Your task to perform on an android device: Clear all items from cart on walmart.com. Add "macbook pro 13 inch" to the cart on walmart.com, then select checkout. Image 0: 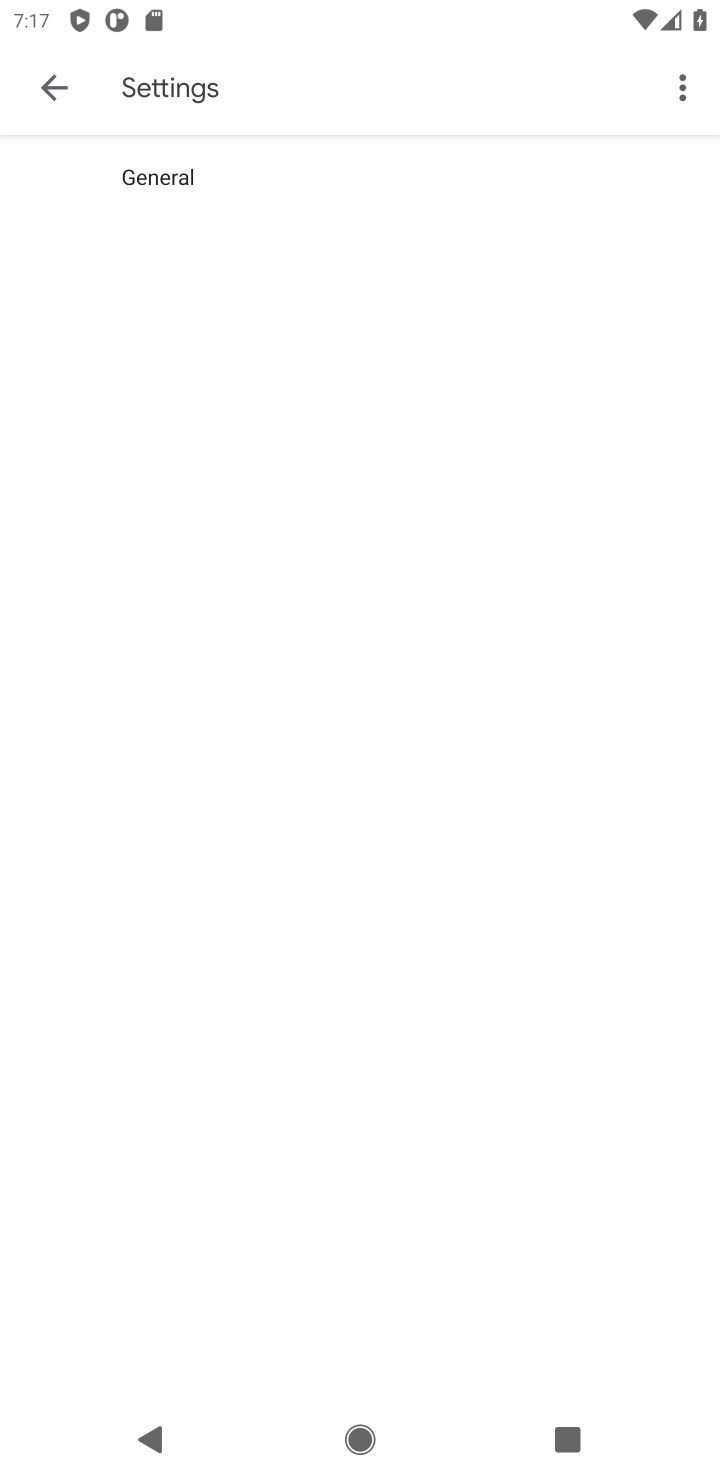
Step 0: press home button
Your task to perform on an android device: Clear all items from cart on walmart.com. Add "macbook pro 13 inch" to the cart on walmart.com, then select checkout. Image 1: 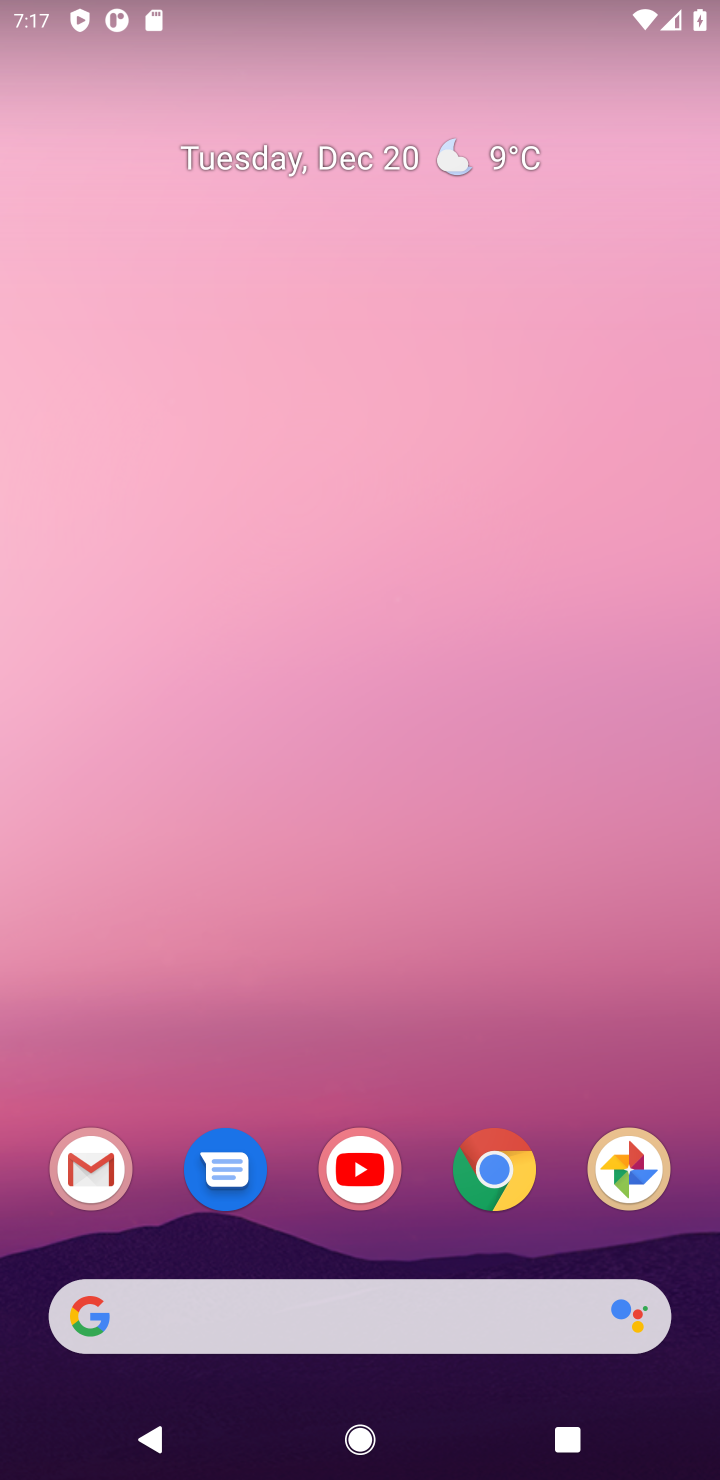
Step 1: click (469, 1165)
Your task to perform on an android device: Clear all items from cart on walmart.com. Add "macbook pro 13 inch" to the cart on walmart.com, then select checkout. Image 2: 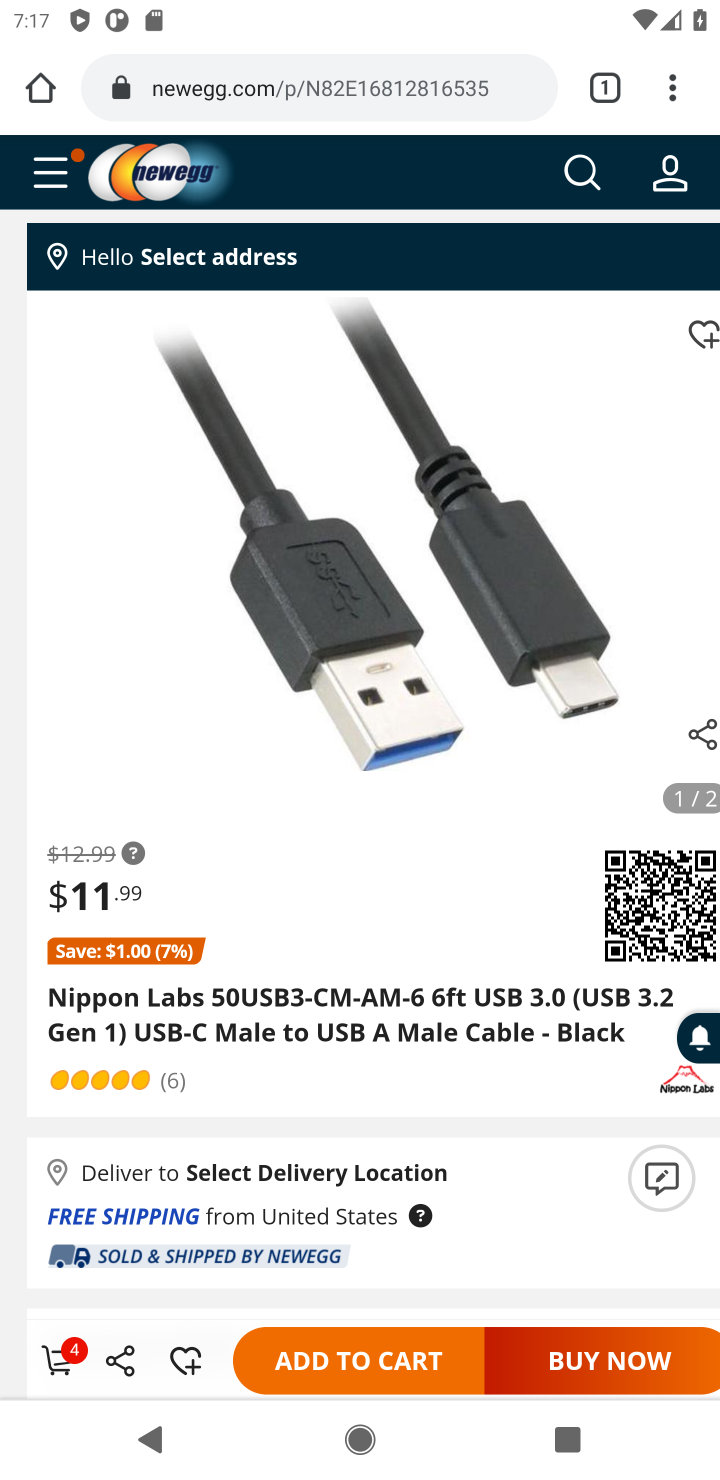
Step 2: click (415, 96)
Your task to perform on an android device: Clear all items from cart on walmart.com. Add "macbook pro 13 inch" to the cart on walmart.com, then select checkout. Image 3: 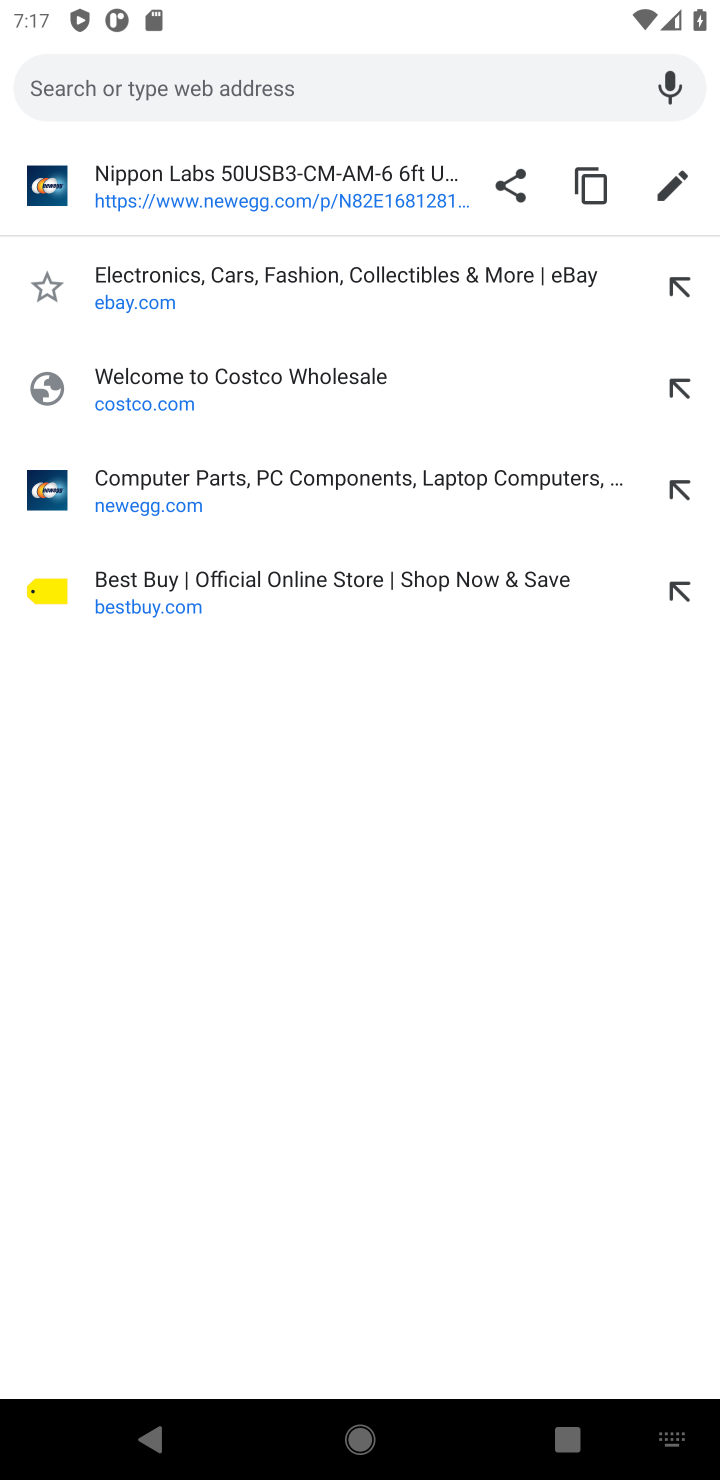
Step 3: type "walmart"
Your task to perform on an android device: Clear all items from cart on walmart.com. Add "macbook pro 13 inch" to the cart on walmart.com, then select checkout. Image 4: 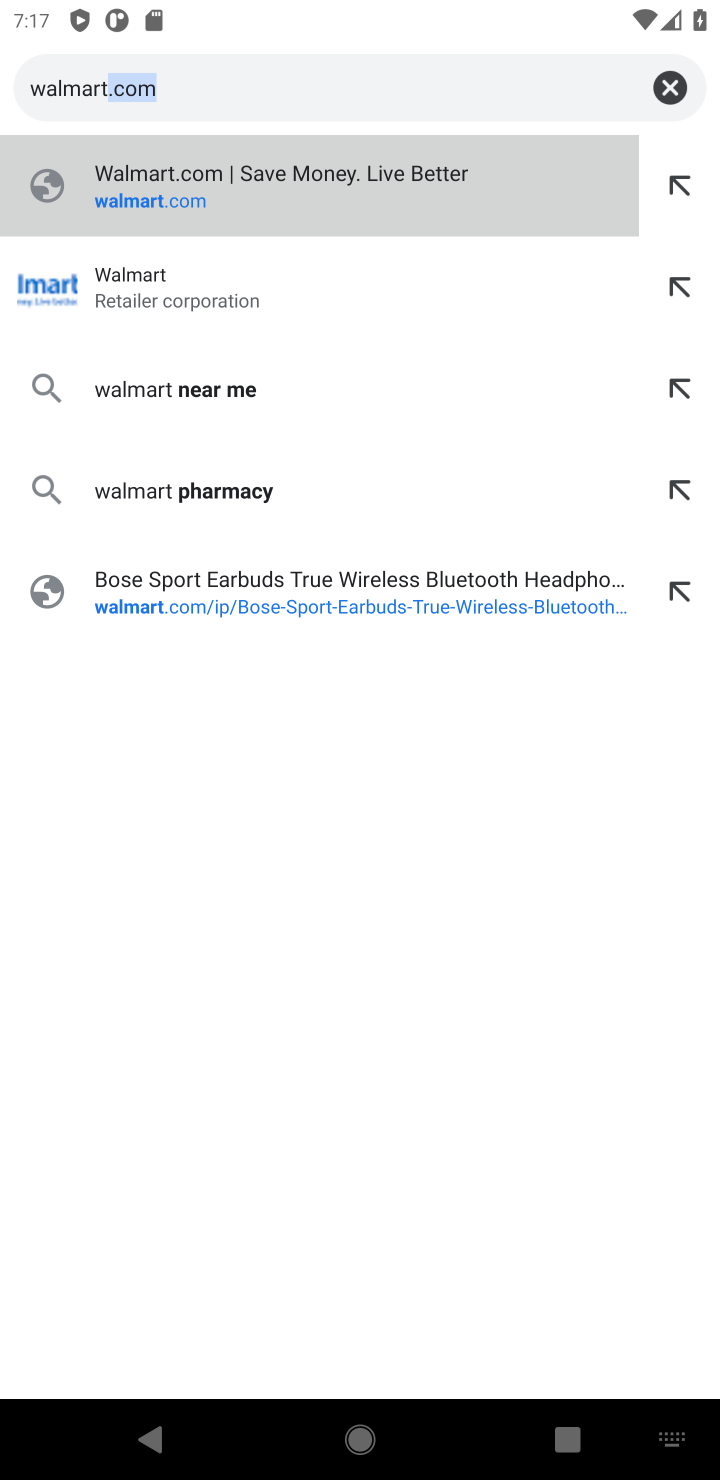
Step 4: click (355, 194)
Your task to perform on an android device: Clear all items from cart on walmart.com. Add "macbook pro 13 inch" to the cart on walmart.com, then select checkout. Image 5: 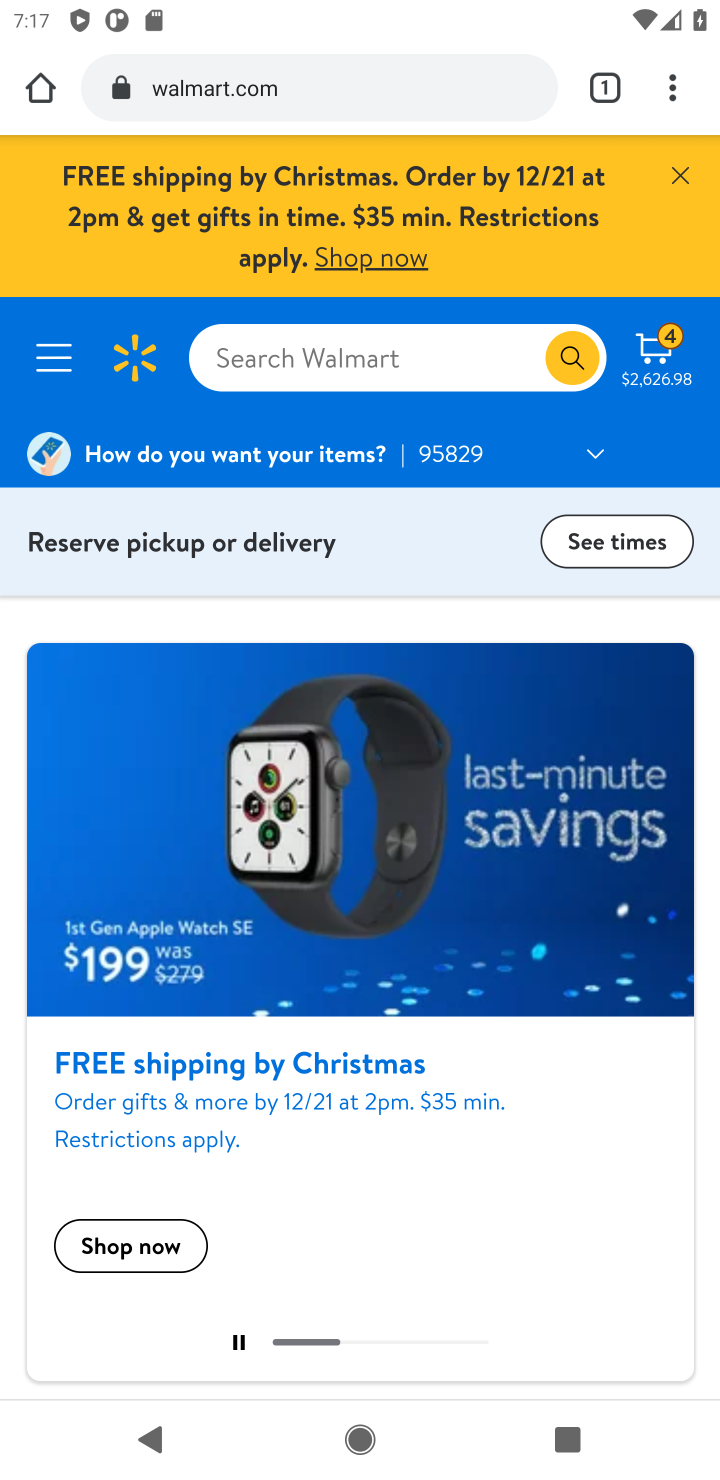
Step 5: click (683, 174)
Your task to perform on an android device: Clear all items from cart on walmart.com. Add "macbook pro 13 inch" to the cart on walmart.com, then select checkout. Image 6: 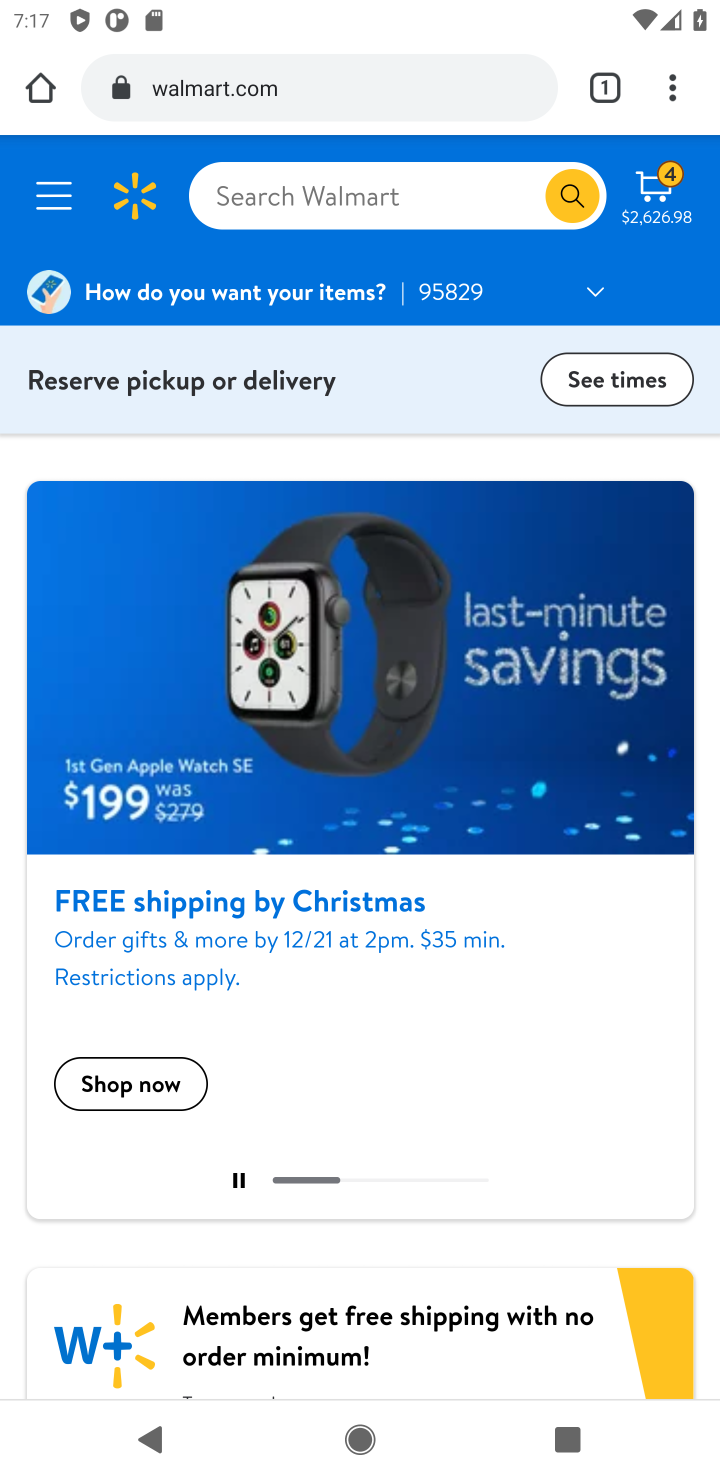
Step 6: click (422, 342)
Your task to perform on an android device: Clear all items from cart on walmart.com. Add "macbook pro 13 inch" to the cart on walmart.com, then select checkout. Image 7: 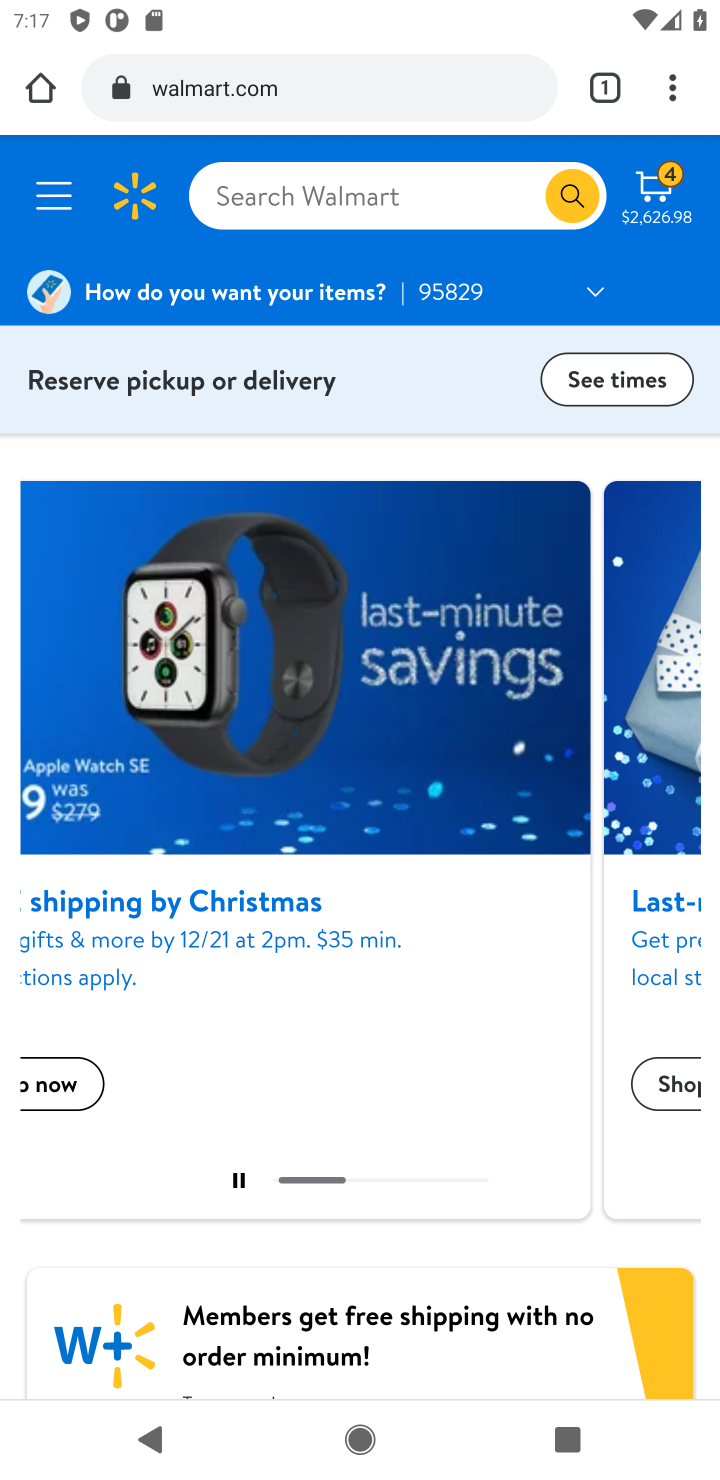
Step 7: click (375, 207)
Your task to perform on an android device: Clear all items from cart on walmart.com. Add "macbook pro 13 inch" to the cart on walmart.com, then select checkout. Image 8: 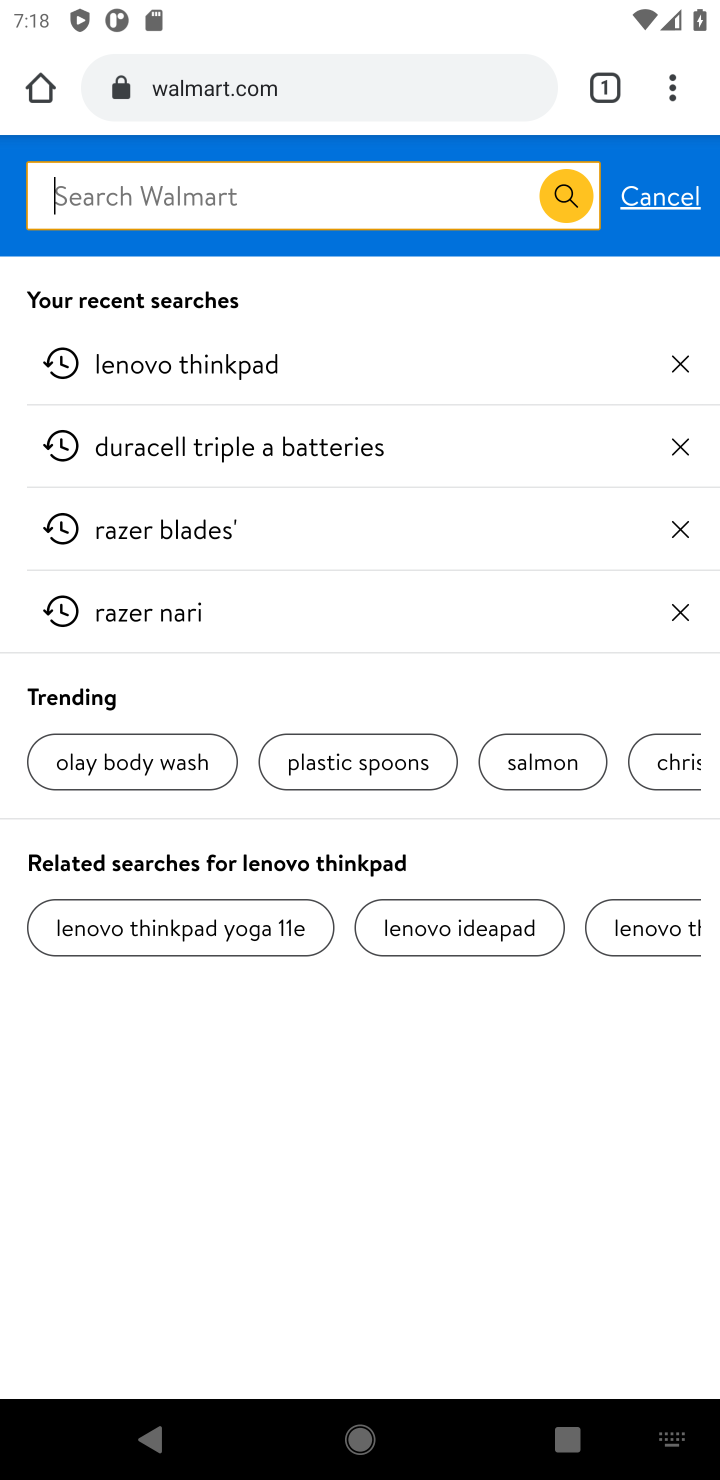
Step 8: type "macbook pro 13"
Your task to perform on an android device: Clear all items from cart on walmart.com. Add "macbook pro 13 inch" to the cart on walmart.com, then select checkout. Image 9: 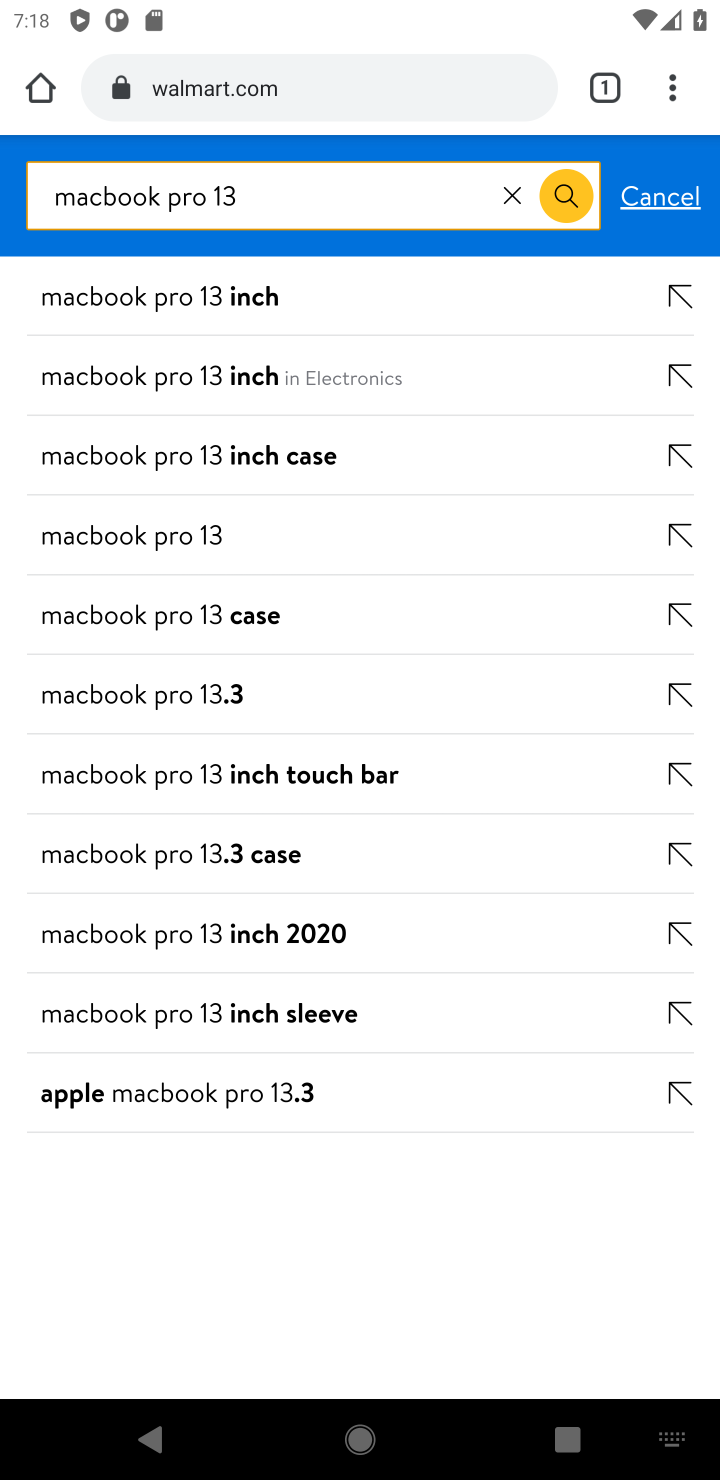
Step 9: click (136, 554)
Your task to perform on an android device: Clear all items from cart on walmart.com. Add "macbook pro 13 inch" to the cart on walmart.com, then select checkout. Image 10: 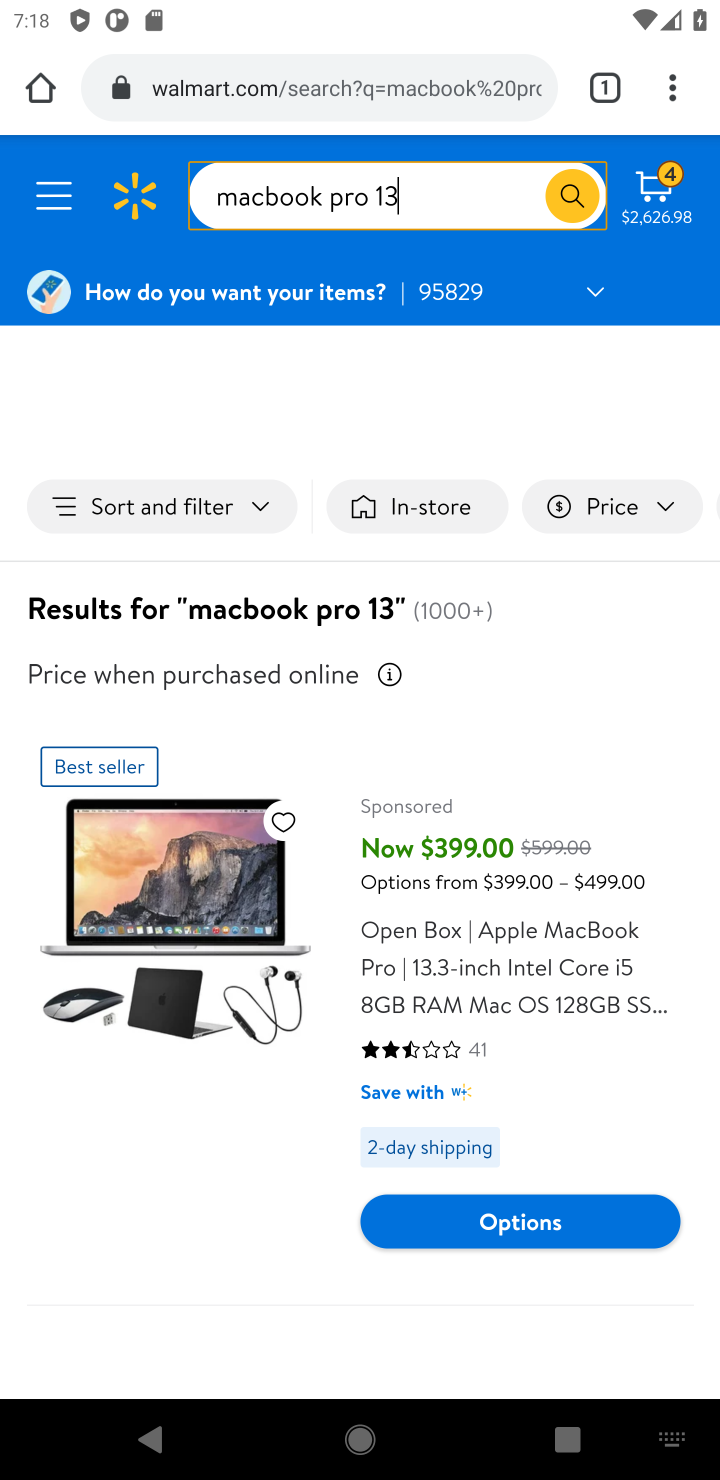
Step 10: click (514, 1239)
Your task to perform on an android device: Clear all items from cart on walmart.com. Add "macbook pro 13 inch" to the cart on walmart.com, then select checkout. Image 11: 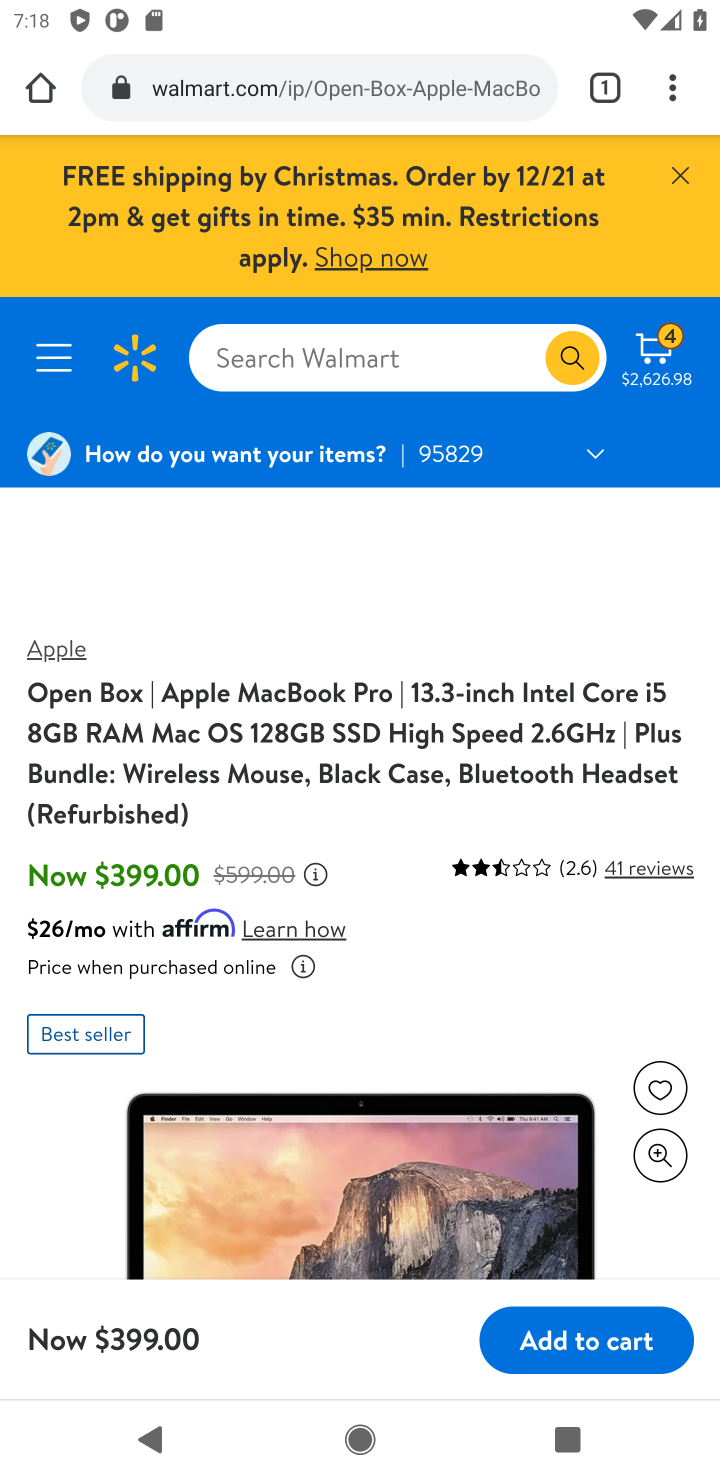
Step 11: click (600, 1358)
Your task to perform on an android device: Clear all items from cart on walmart.com. Add "macbook pro 13 inch" to the cart on walmart.com, then select checkout. Image 12: 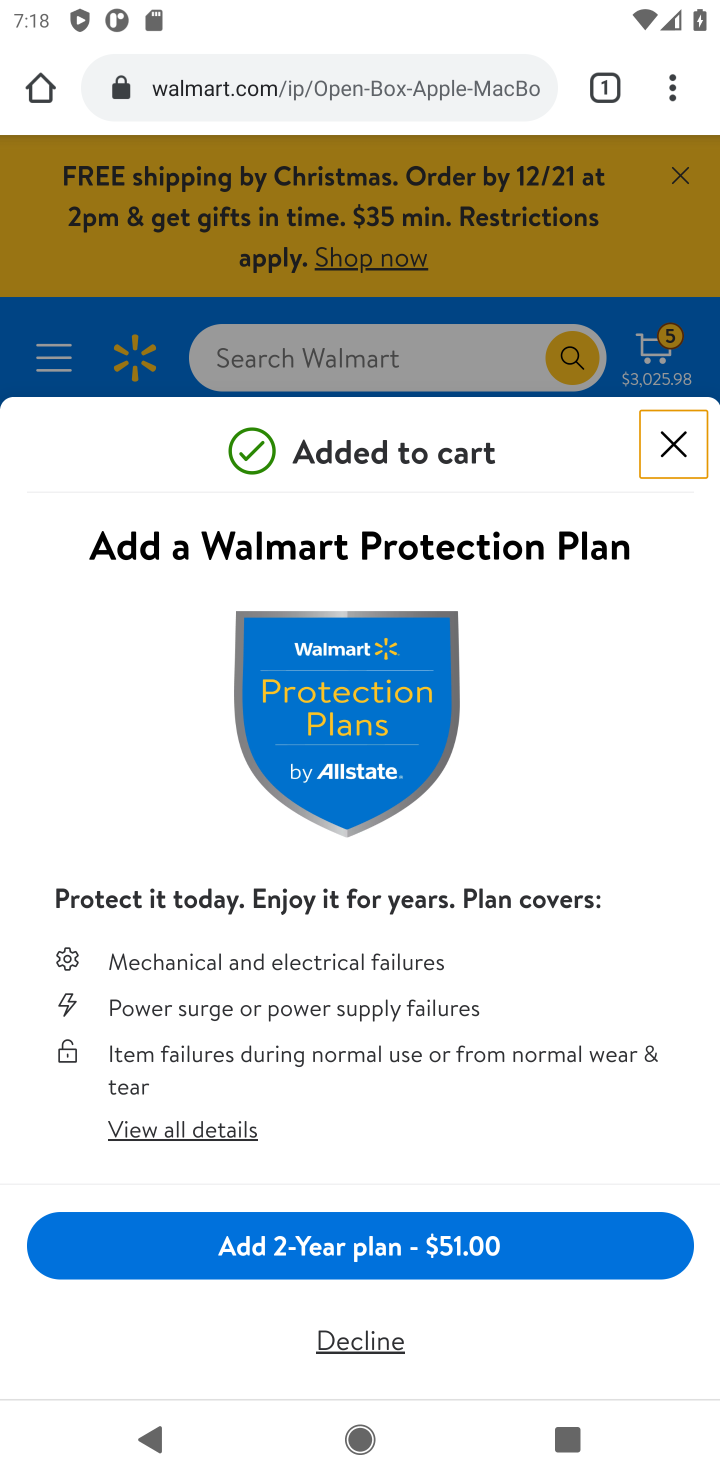
Step 12: task complete